Your task to perform on an android device: Open Youtube and go to "Your channel" Image 0: 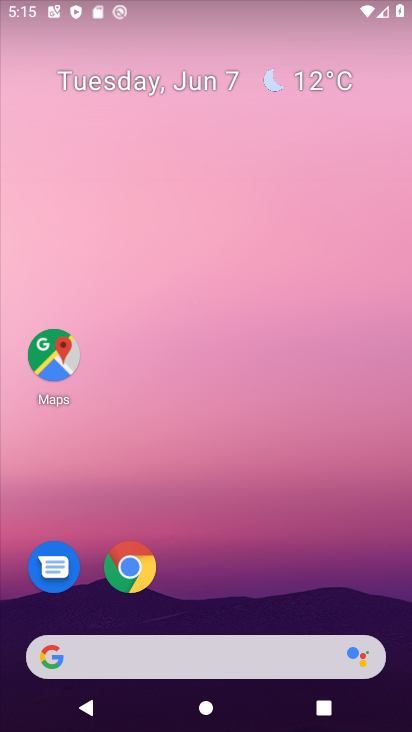
Step 0: click (405, 144)
Your task to perform on an android device: Open Youtube and go to "Your channel" Image 1: 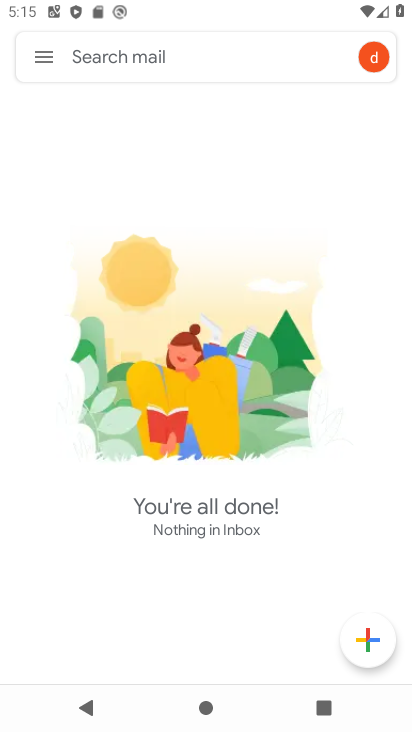
Step 1: press back button
Your task to perform on an android device: Open Youtube and go to "Your channel" Image 2: 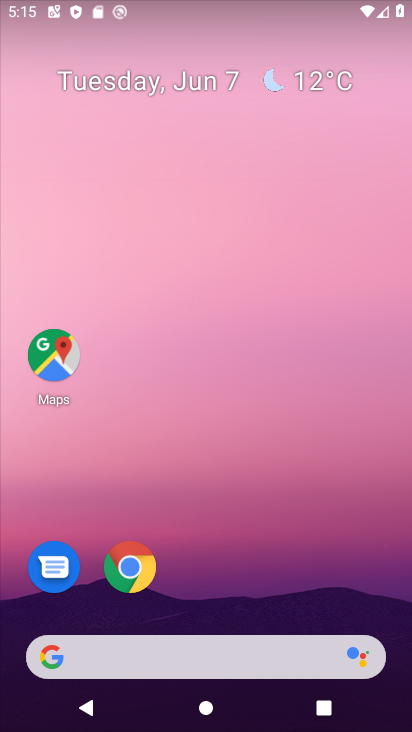
Step 2: drag from (251, 512) to (238, 14)
Your task to perform on an android device: Open Youtube and go to "Your channel" Image 3: 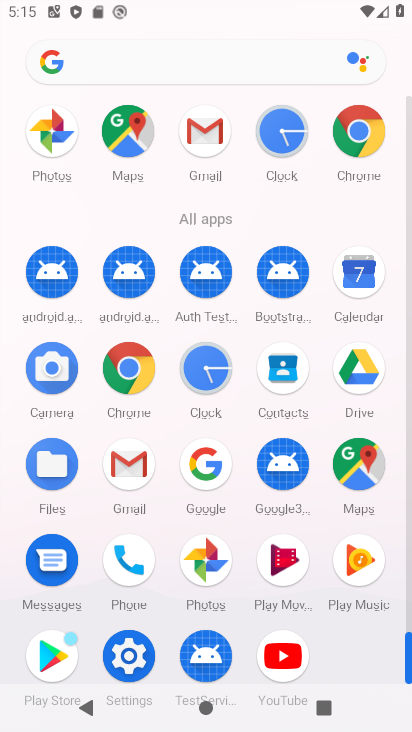
Step 3: click (285, 655)
Your task to perform on an android device: Open Youtube and go to "Your channel" Image 4: 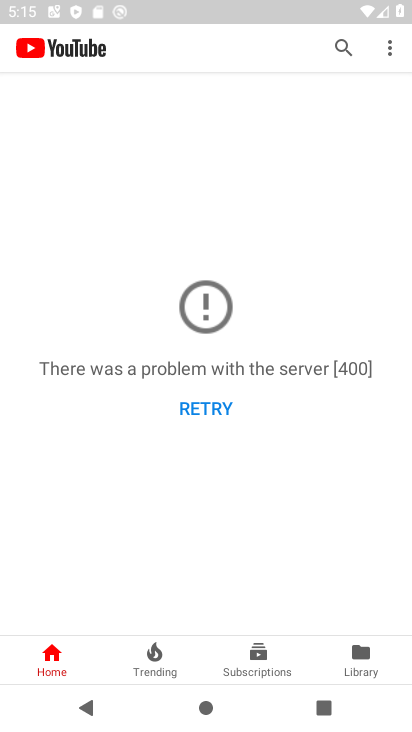
Step 4: click (369, 662)
Your task to perform on an android device: Open Youtube and go to "Your channel" Image 5: 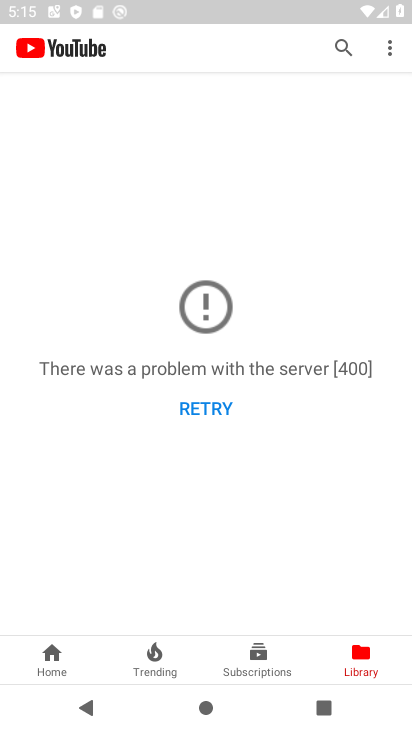
Step 5: task complete